Your task to perform on an android device: change notification settings in the gmail app Image 0: 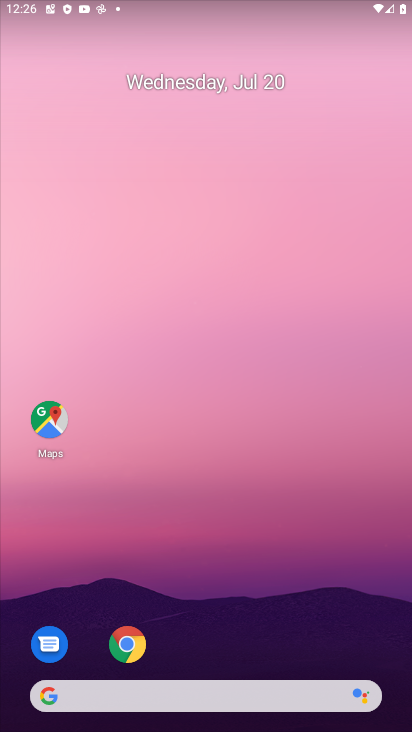
Step 0: drag from (177, 262) to (189, 49)
Your task to perform on an android device: change notification settings in the gmail app Image 1: 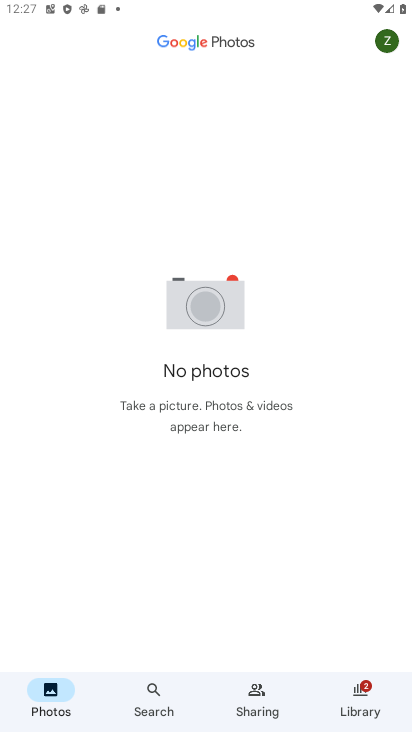
Step 1: press home button
Your task to perform on an android device: change notification settings in the gmail app Image 2: 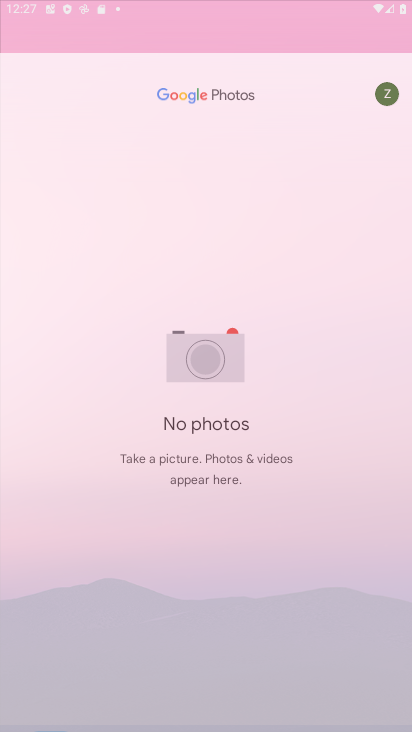
Step 2: drag from (328, 581) to (297, 1)
Your task to perform on an android device: change notification settings in the gmail app Image 3: 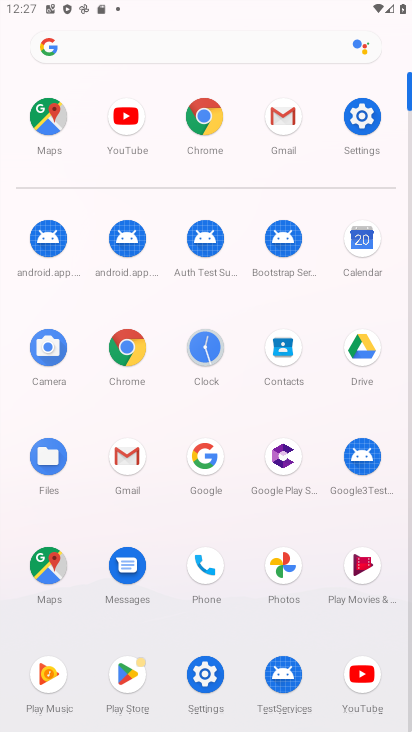
Step 3: click (290, 571)
Your task to perform on an android device: change notification settings in the gmail app Image 4: 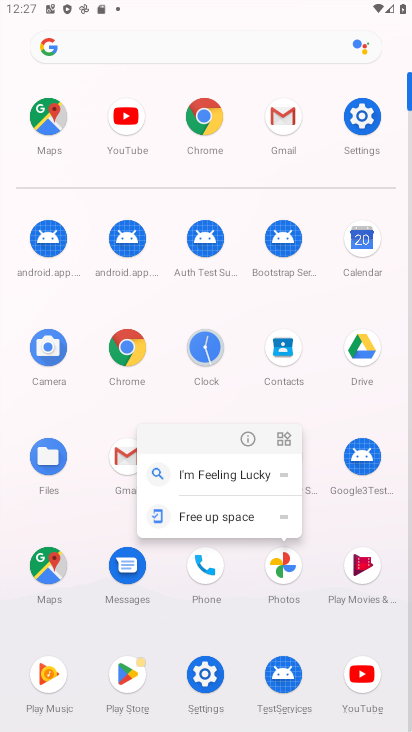
Step 4: click (248, 599)
Your task to perform on an android device: change notification settings in the gmail app Image 5: 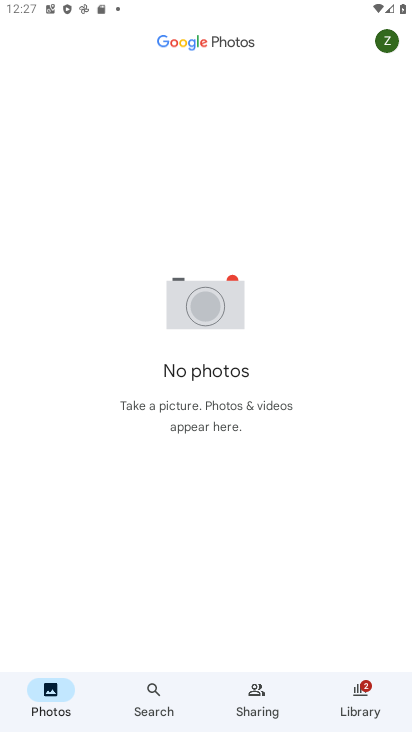
Step 5: click (122, 479)
Your task to perform on an android device: change notification settings in the gmail app Image 6: 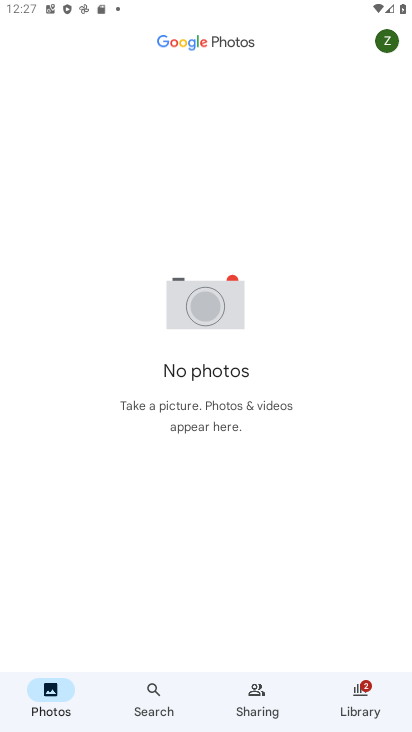
Step 6: press home button
Your task to perform on an android device: change notification settings in the gmail app Image 7: 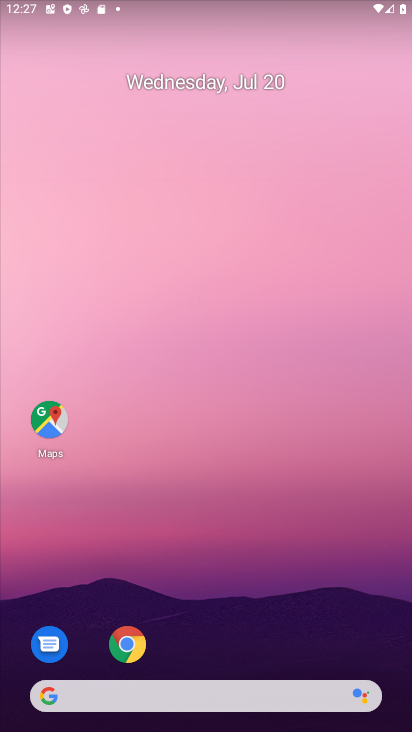
Step 7: drag from (291, 555) to (410, 552)
Your task to perform on an android device: change notification settings in the gmail app Image 8: 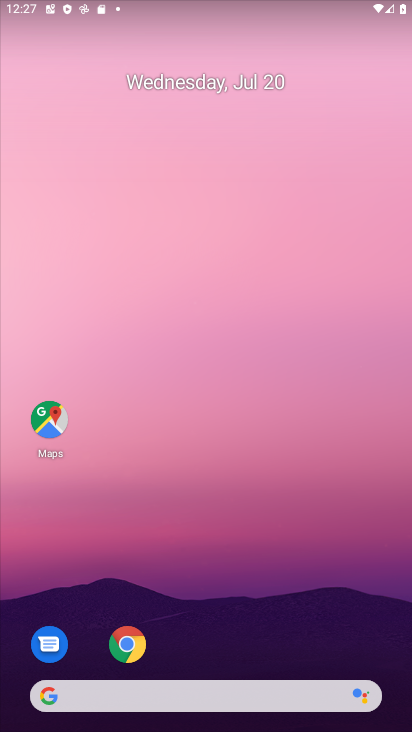
Step 8: drag from (270, 682) to (360, 6)
Your task to perform on an android device: change notification settings in the gmail app Image 9: 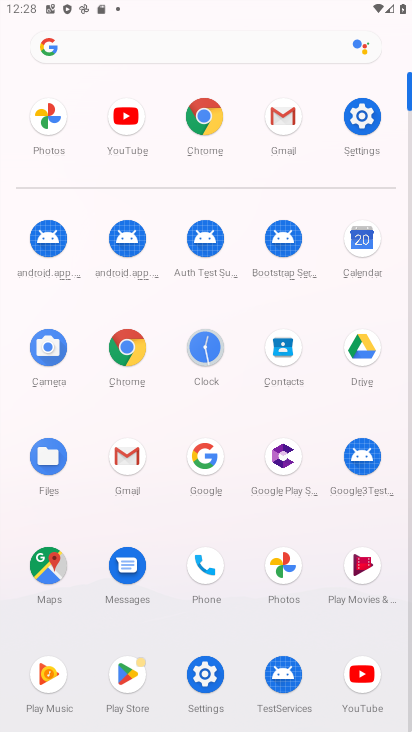
Step 9: click (122, 474)
Your task to perform on an android device: change notification settings in the gmail app Image 10: 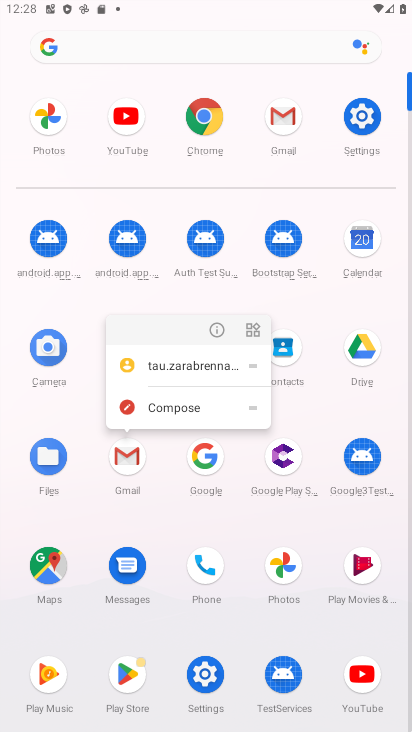
Step 10: click (215, 329)
Your task to perform on an android device: change notification settings in the gmail app Image 11: 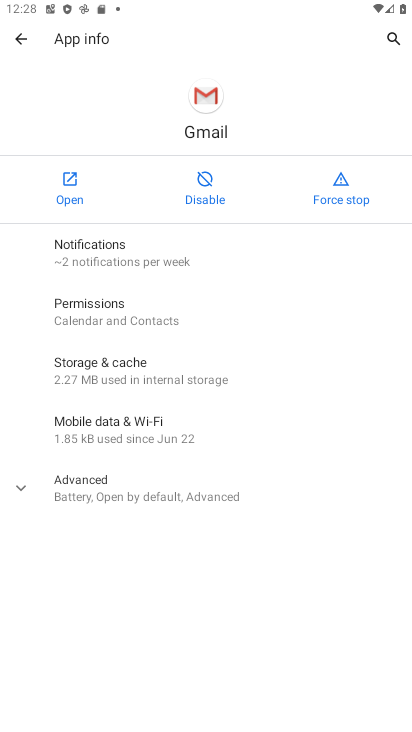
Step 11: click (139, 234)
Your task to perform on an android device: change notification settings in the gmail app Image 12: 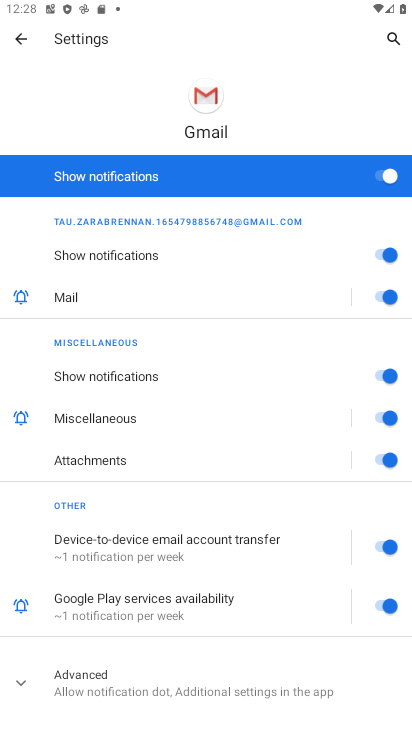
Step 12: click (272, 186)
Your task to perform on an android device: change notification settings in the gmail app Image 13: 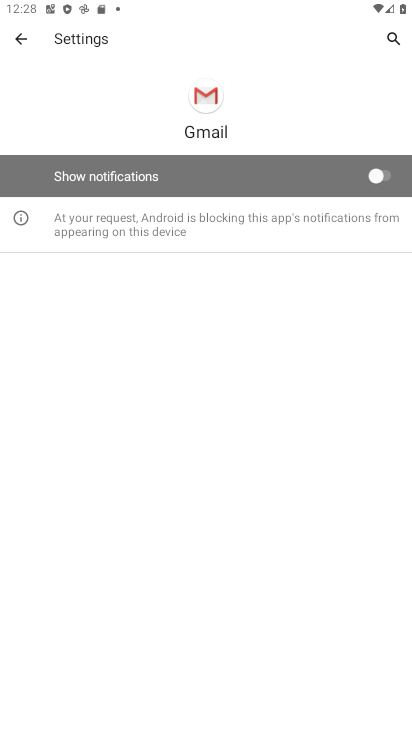
Step 13: task complete